Your task to perform on an android device: turn on notifications settings in the gmail app Image 0: 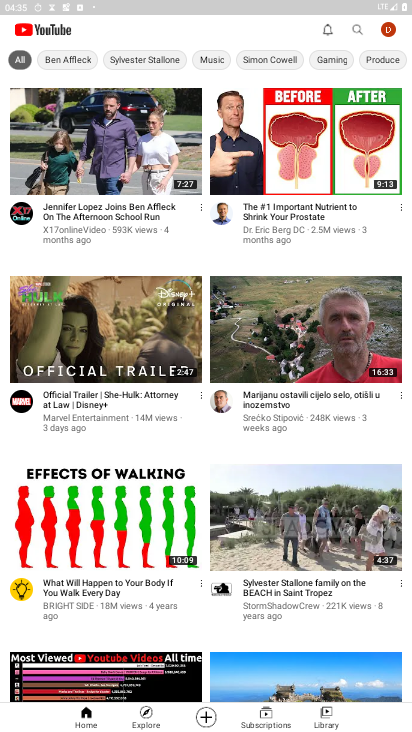
Step 0: press home button
Your task to perform on an android device: turn on notifications settings in the gmail app Image 1: 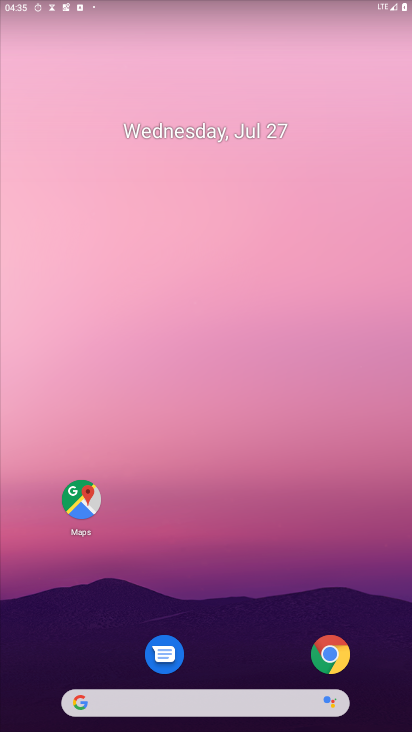
Step 1: drag from (331, 645) to (261, 48)
Your task to perform on an android device: turn on notifications settings in the gmail app Image 2: 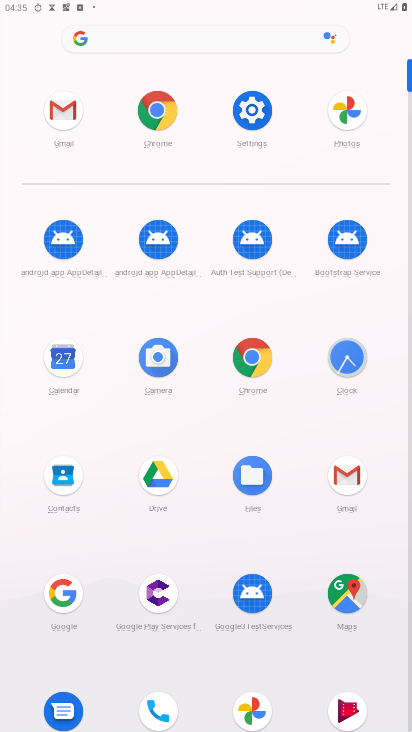
Step 2: click (350, 481)
Your task to perform on an android device: turn on notifications settings in the gmail app Image 3: 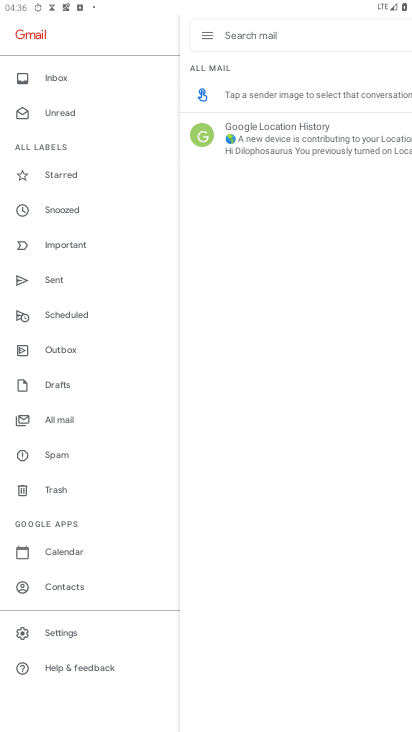
Step 3: click (84, 637)
Your task to perform on an android device: turn on notifications settings in the gmail app Image 4: 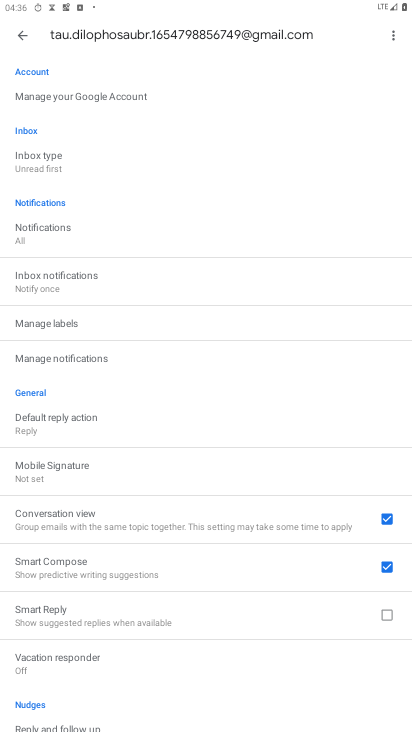
Step 4: click (67, 348)
Your task to perform on an android device: turn on notifications settings in the gmail app Image 5: 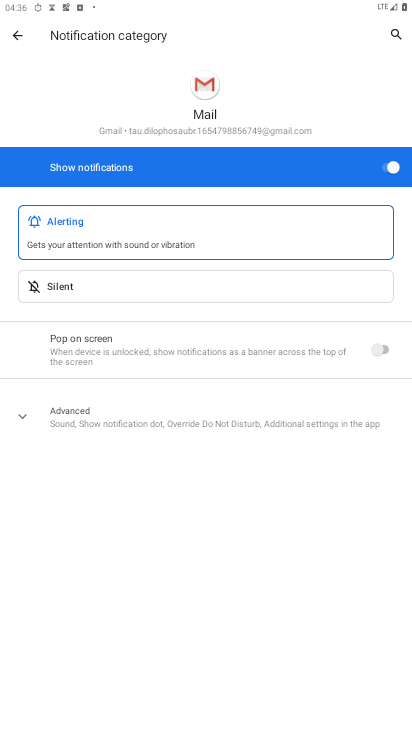
Step 5: task complete